Your task to perform on an android device: open a bookmark in the chrome app Image 0: 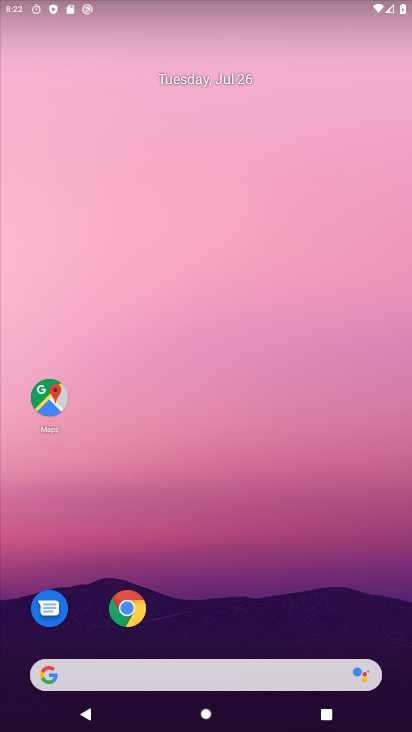
Step 0: drag from (297, 573) to (317, 62)
Your task to perform on an android device: open a bookmark in the chrome app Image 1: 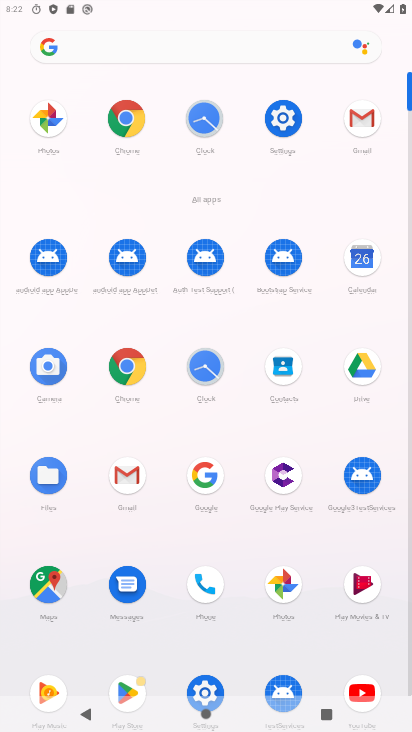
Step 1: click (135, 363)
Your task to perform on an android device: open a bookmark in the chrome app Image 2: 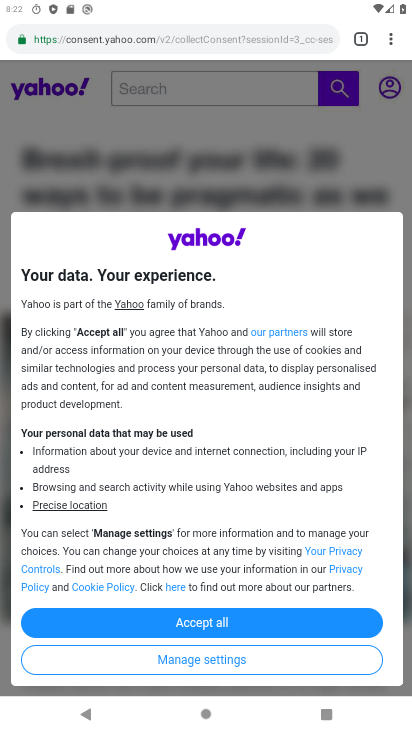
Step 2: click (392, 36)
Your task to perform on an android device: open a bookmark in the chrome app Image 3: 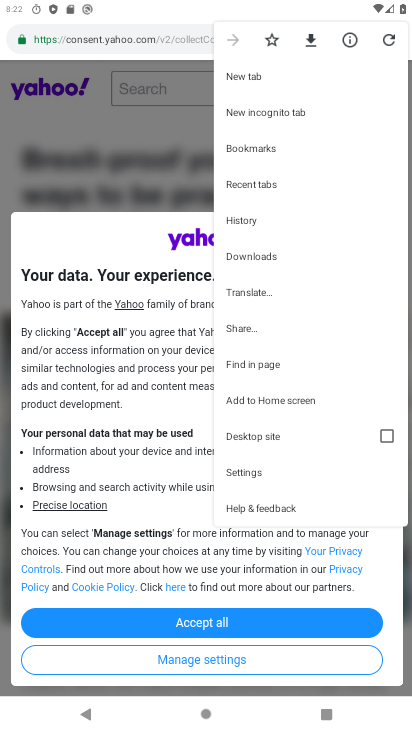
Step 3: click (262, 142)
Your task to perform on an android device: open a bookmark in the chrome app Image 4: 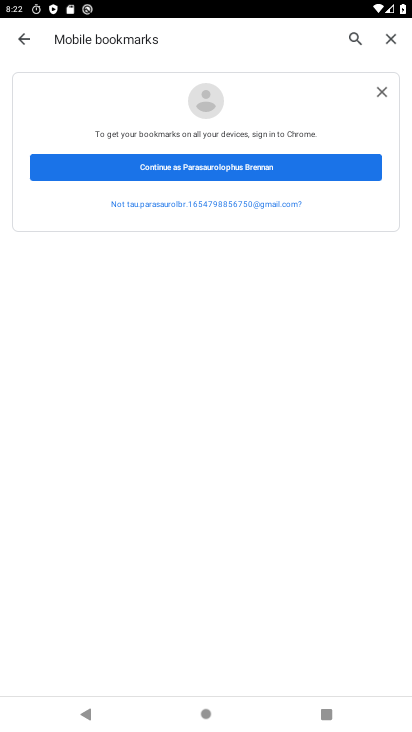
Step 4: task complete